Your task to perform on an android device: delete the emails in spam in the gmail app Image 0: 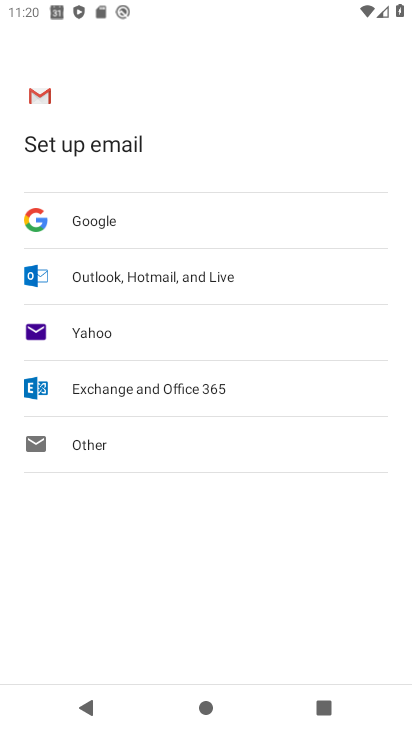
Step 0: press home button
Your task to perform on an android device: delete the emails in spam in the gmail app Image 1: 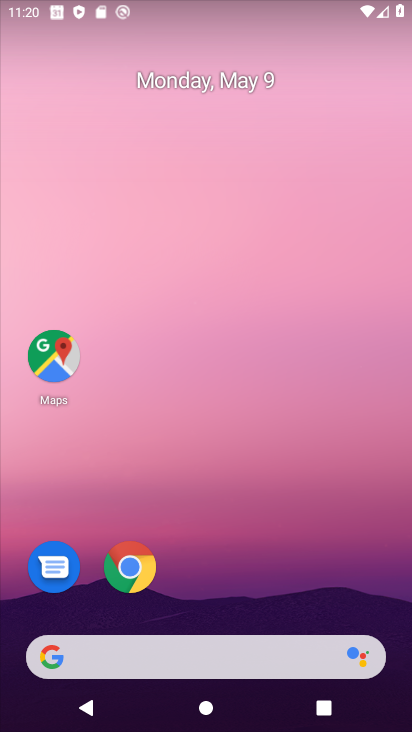
Step 1: drag from (390, 656) to (244, 59)
Your task to perform on an android device: delete the emails in spam in the gmail app Image 2: 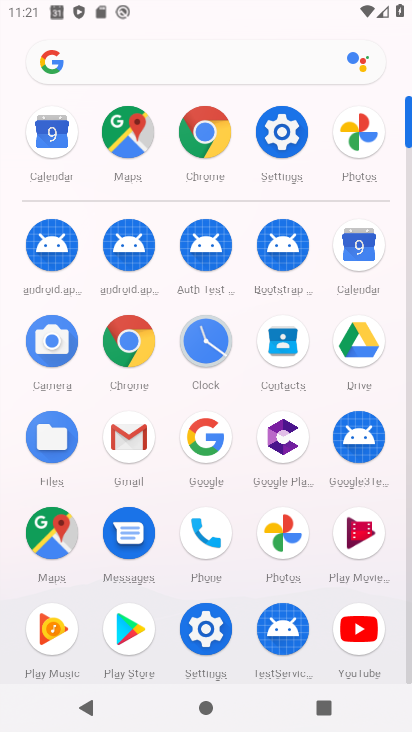
Step 2: click (129, 457)
Your task to perform on an android device: delete the emails in spam in the gmail app Image 3: 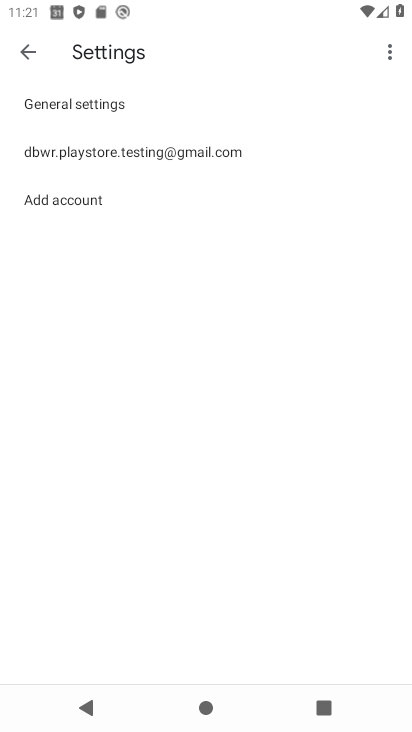
Step 3: press back button
Your task to perform on an android device: delete the emails in spam in the gmail app Image 4: 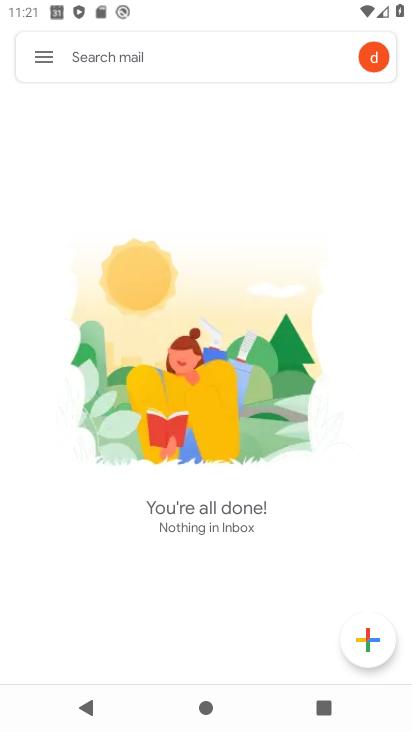
Step 4: click (41, 60)
Your task to perform on an android device: delete the emails in spam in the gmail app Image 5: 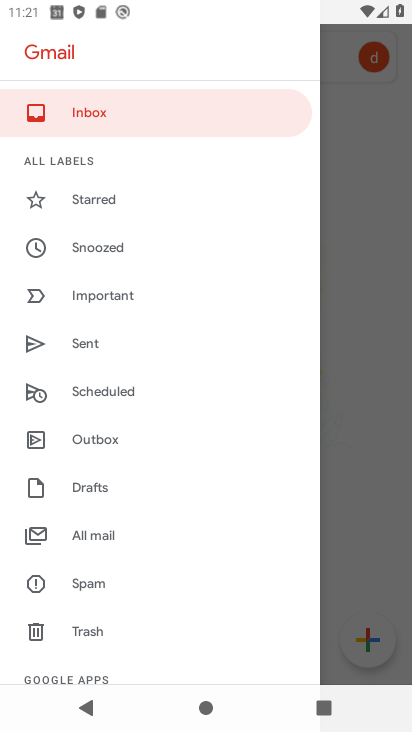
Step 5: click (122, 582)
Your task to perform on an android device: delete the emails in spam in the gmail app Image 6: 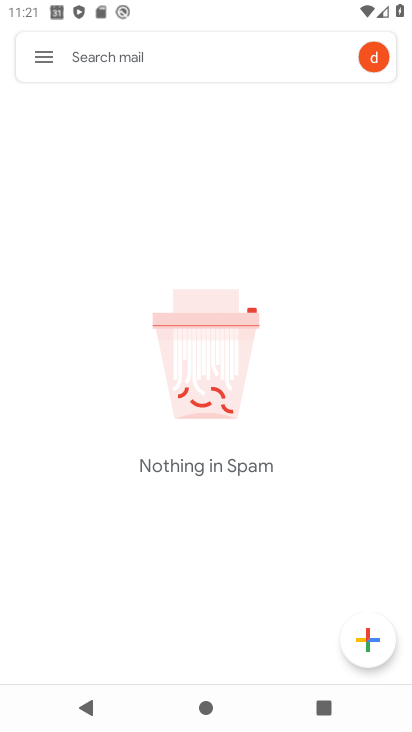
Step 6: task complete